Your task to perform on an android device: toggle improve location accuracy Image 0: 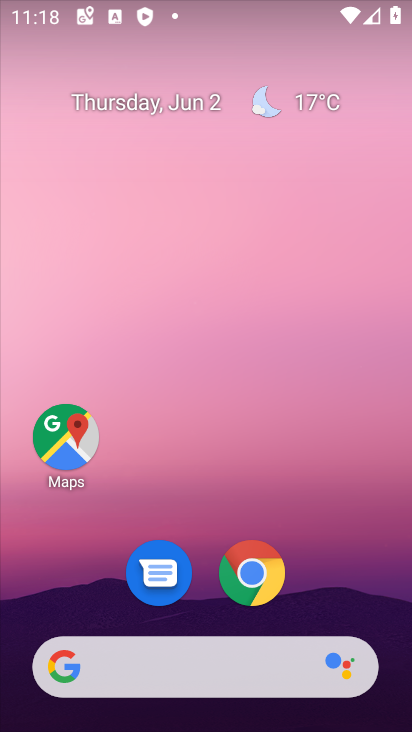
Step 0: drag from (333, 613) to (310, 17)
Your task to perform on an android device: toggle improve location accuracy Image 1: 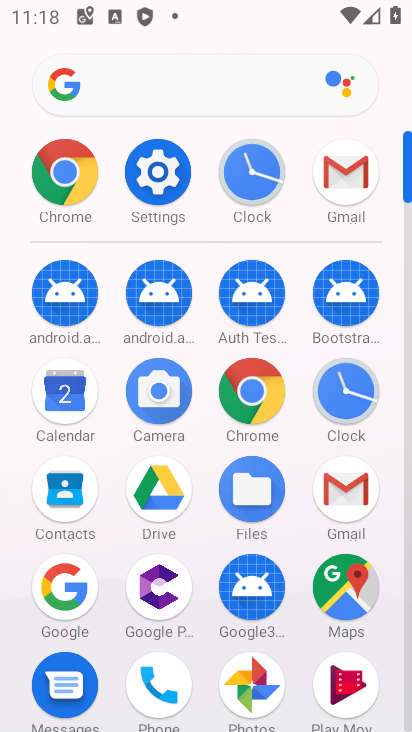
Step 1: click (155, 161)
Your task to perform on an android device: toggle improve location accuracy Image 2: 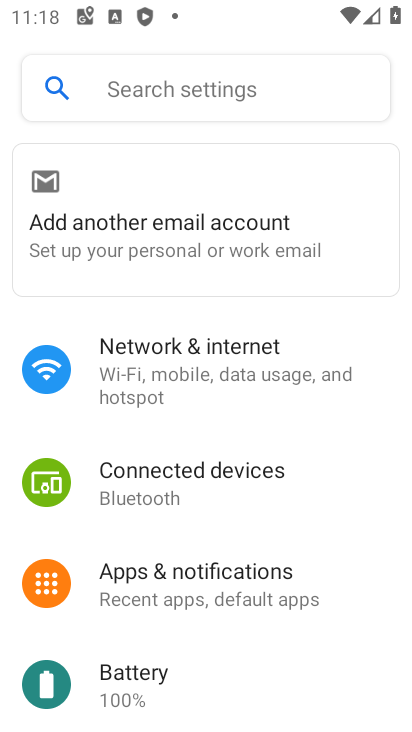
Step 2: drag from (226, 655) to (245, 228)
Your task to perform on an android device: toggle improve location accuracy Image 3: 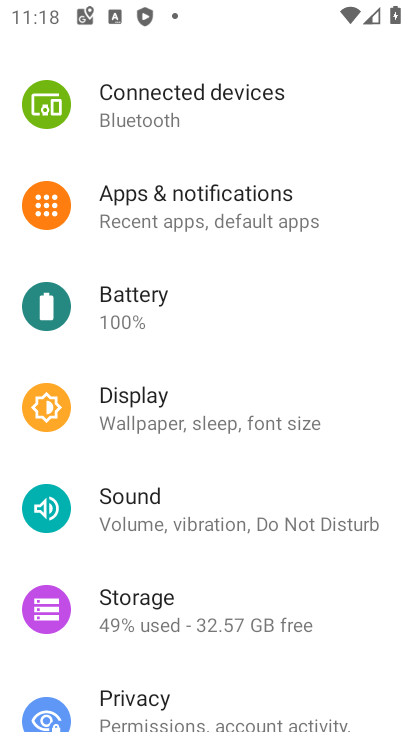
Step 3: drag from (245, 203) to (233, 513)
Your task to perform on an android device: toggle improve location accuracy Image 4: 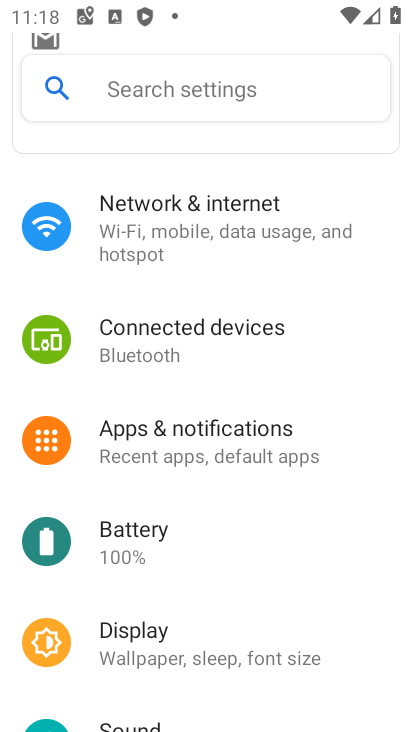
Step 4: drag from (202, 638) to (193, 244)
Your task to perform on an android device: toggle improve location accuracy Image 5: 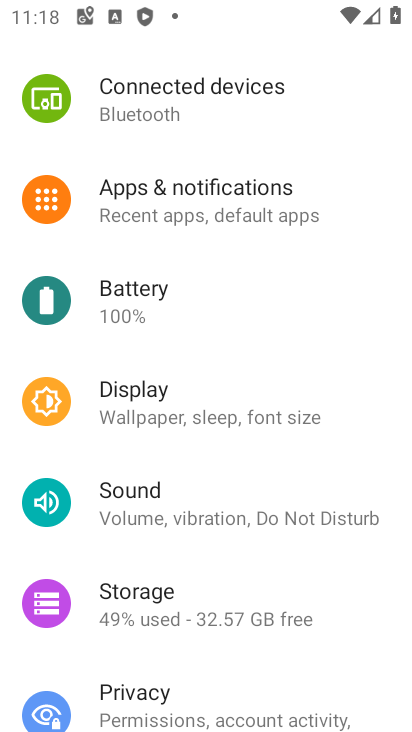
Step 5: drag from (225, 618) to (311, 98)
Your task to perform on an android device: toggle improve location accuracy Image 6: 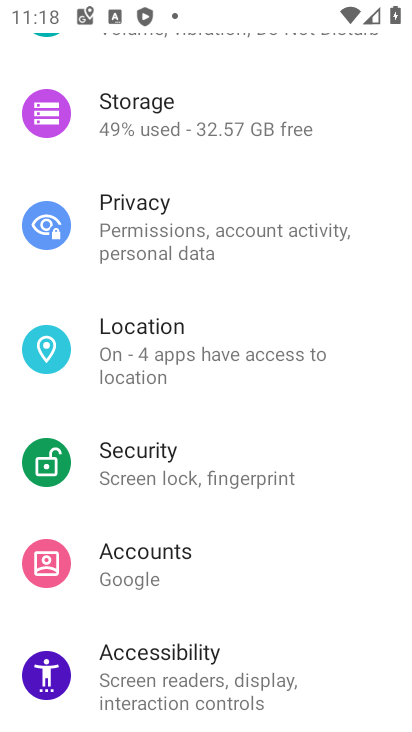
Step 6: click (174, 353)
Your task to perform on an android device: toggle improve location accuracy Image 7: 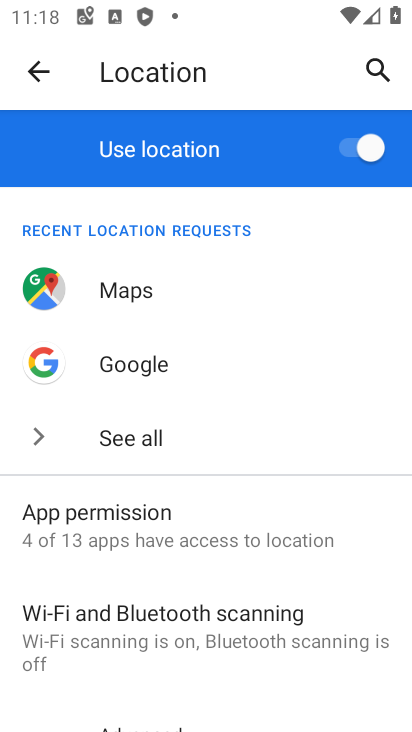
Step 7: drag from (225, 607) to (249, 217)
Your task to perform on an android device: toggle improve location accuracy Image 8: 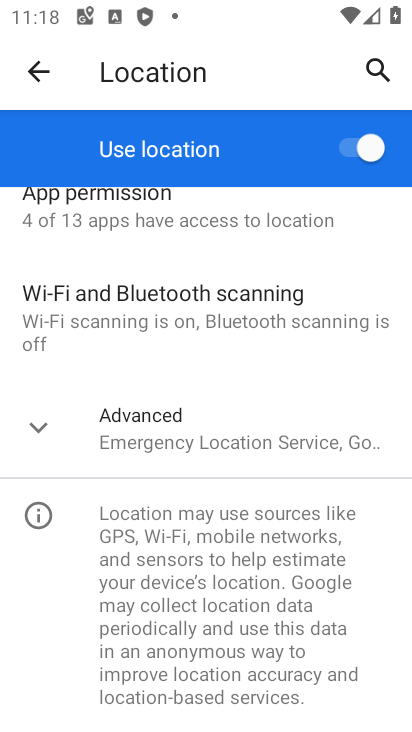
Step 8: click (138, 427)
Your task to perform on an android device: toggle improve location accuracy Image 9: 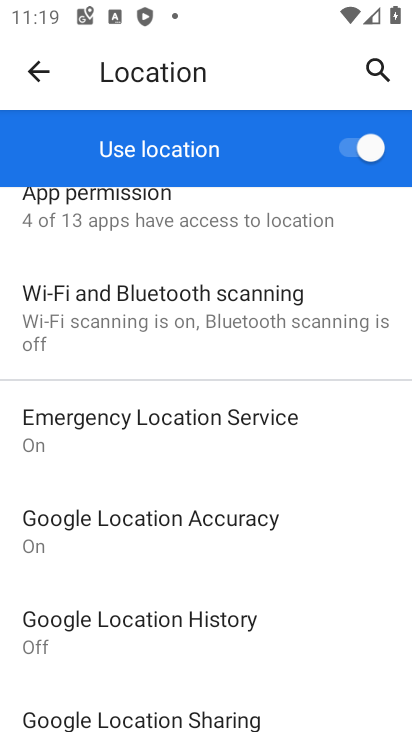
Step 9: drag from (138, 646) to (200, 290)
Your task to perform on an android device: toggle improve location accuracy Image 10: 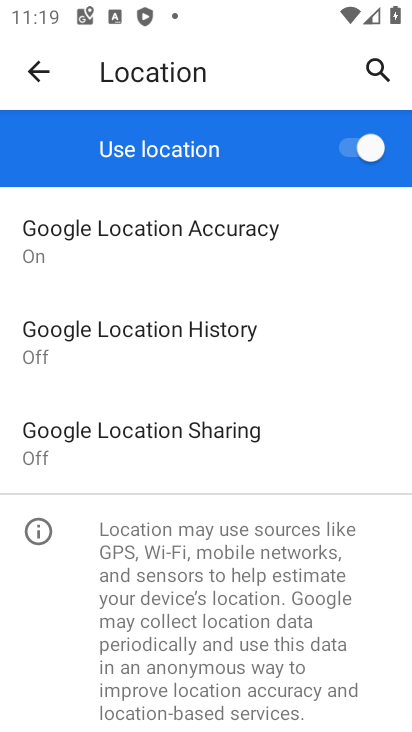
Step 10: click (192, 257)
Your task to perform on an android device: toggle improve location accuracy Image 11: 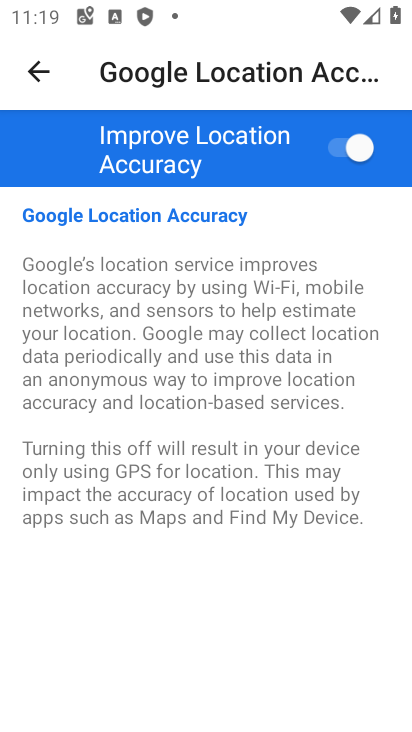
Step 11: click (348, 143)
Your task to perform on an android device: toggle improve location accuracy Image 12: 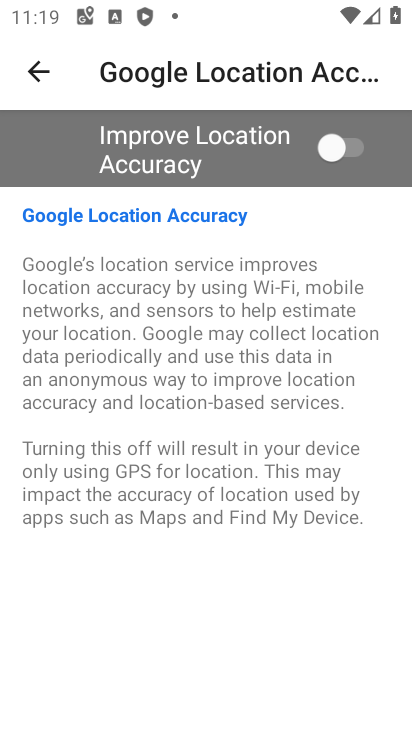
Step 12: task complete